Your task to perform on an android device: change timer sound Image 0: 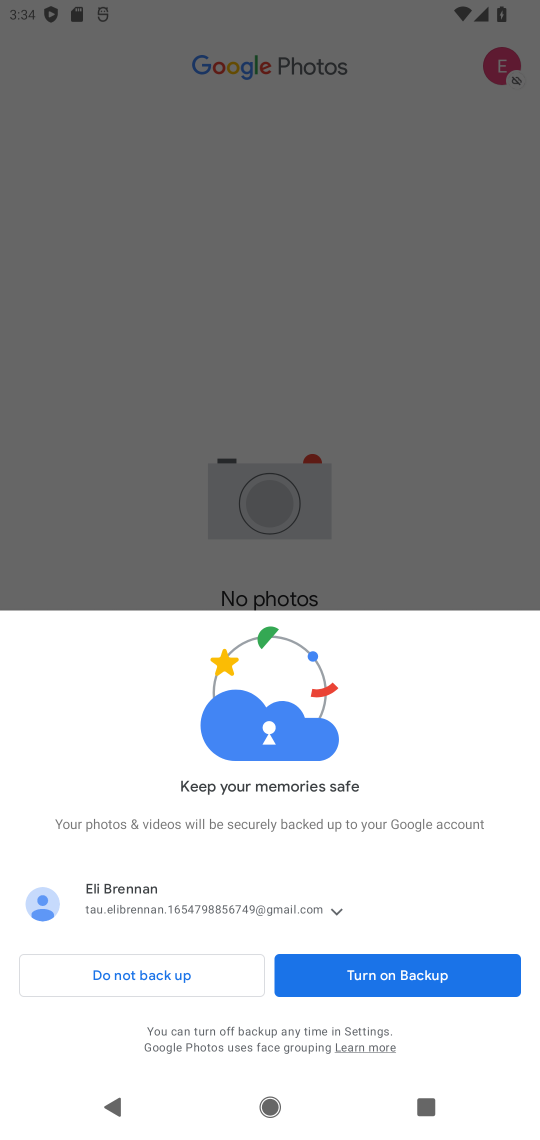
Step 0: press home button
Your task to perform on an android device: change timer sound Image 1: 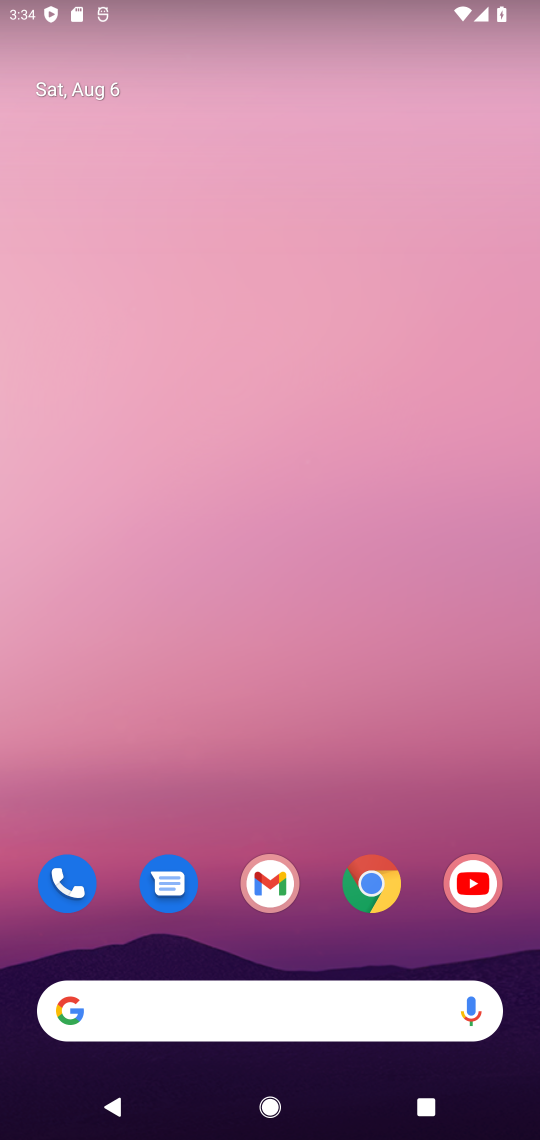
Step 1: drag from (297, 532) to (297, 240)
Your task to perform on an android device: change timer sound Image 2: 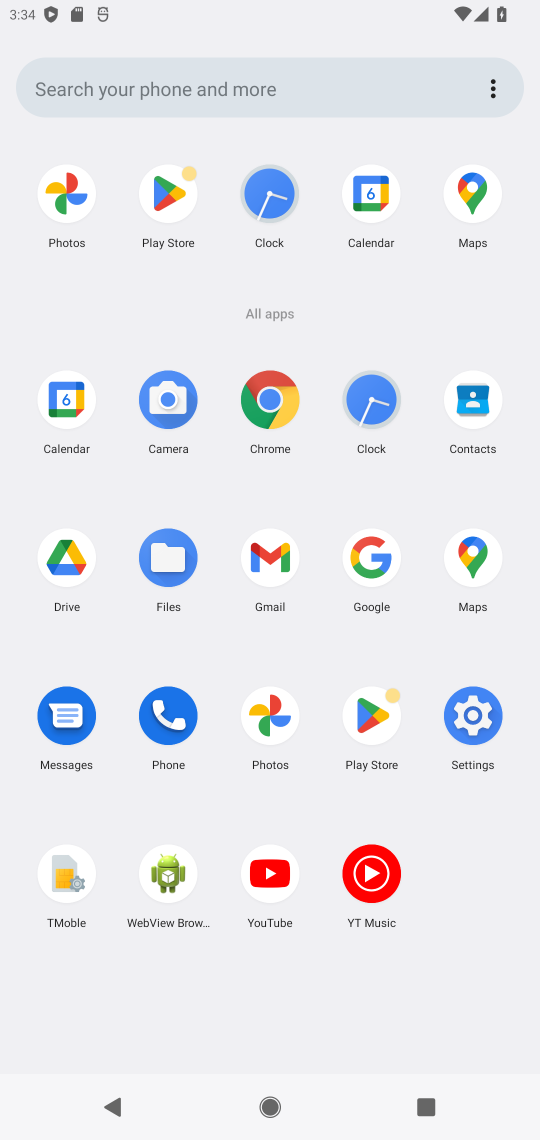
Step 2: click (362, 439)
Your task to perform on an android device: change timer sound Image 3: 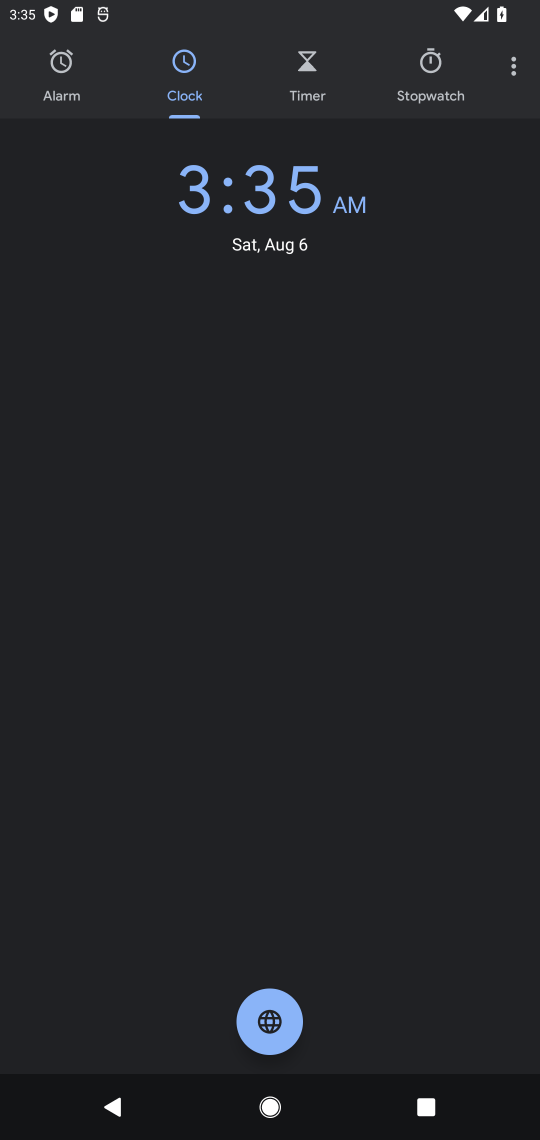
Step 3: click (103, 68)
Your task to perform on an android device: change timer sound Image 4: 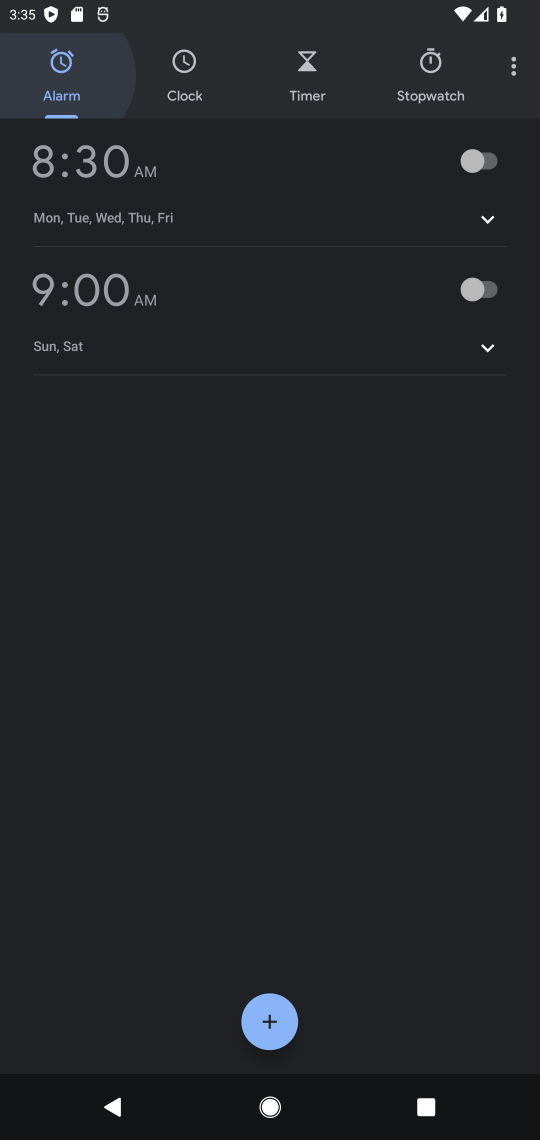
Step 4: click (302, 81)
Your task to perform on an android device: change timer sound Image 5: 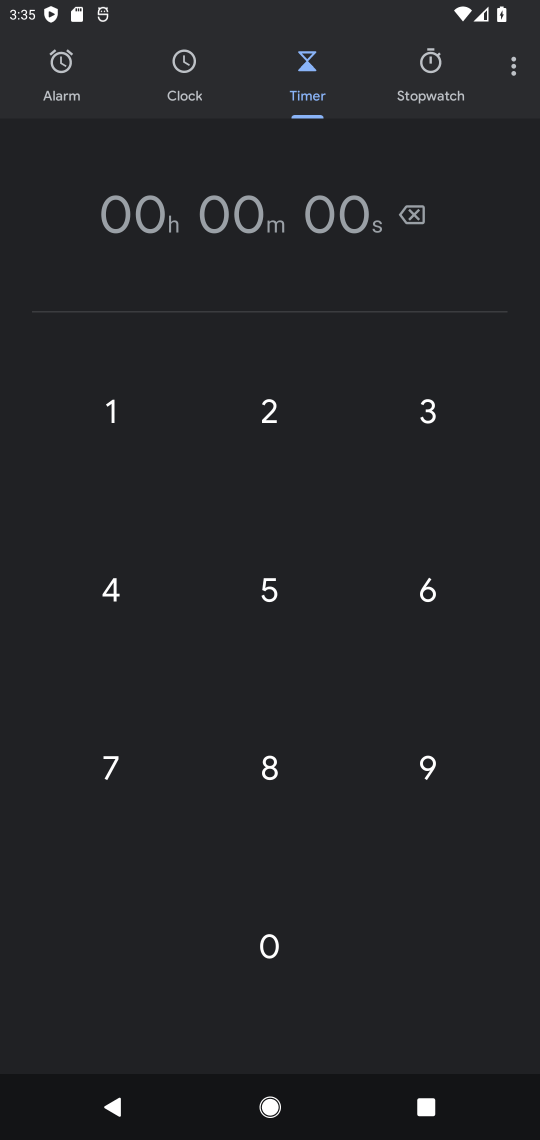
Step 5: click (516, 54)
Your task to perform on an android device: change timer sound Image 6: 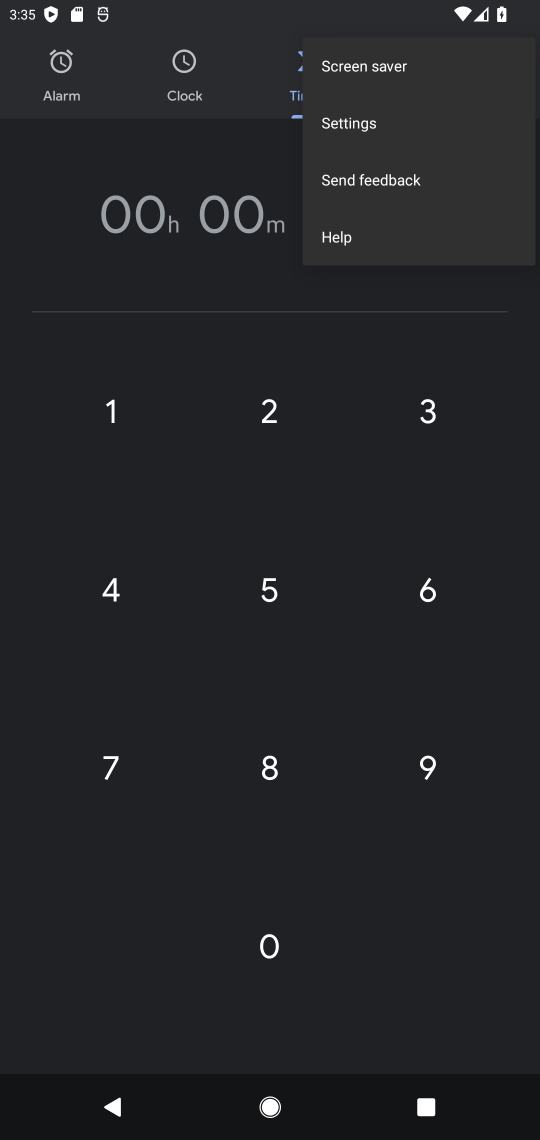
Step 6: click (355, 128)
Your task to perform on an android device: change timer sound Image 7: 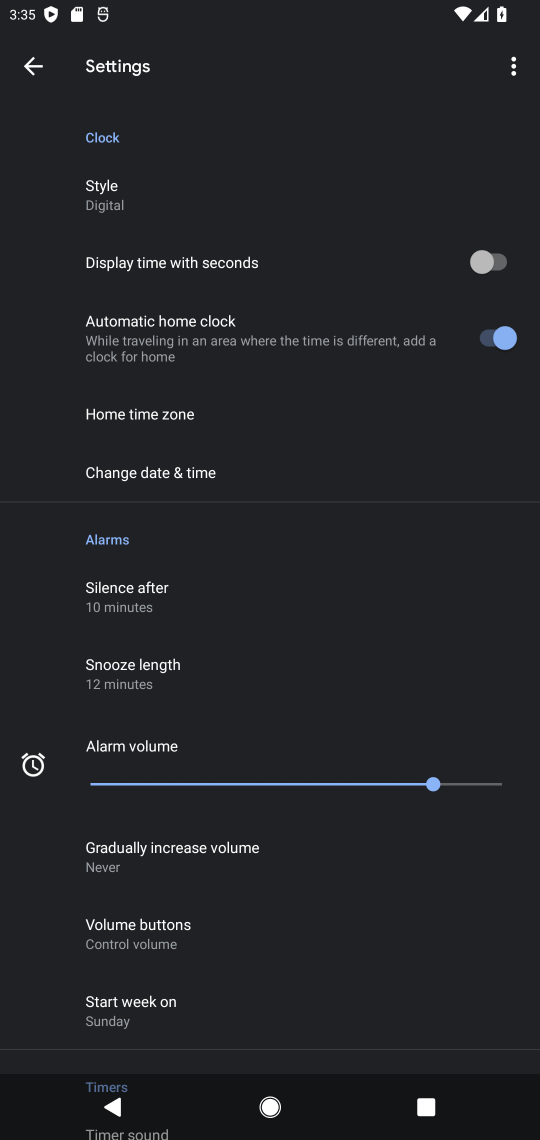
Step 7: drag from (289, 613) to (359, 161)
Your task to perform on an android device: change timer sound Image 8: 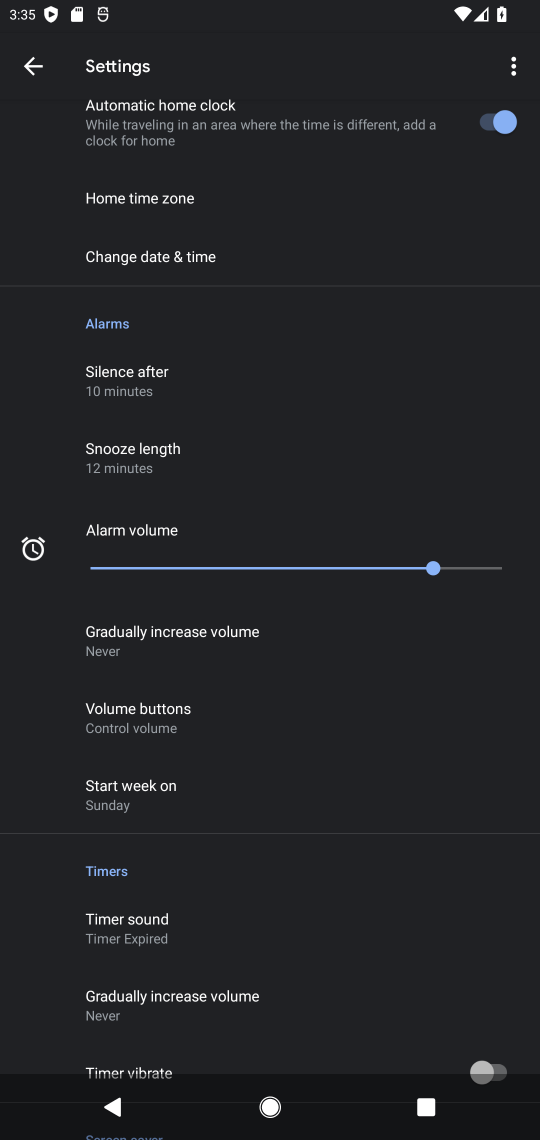
Step 8: click (152, 929)
Your task to perform on an android device: change timer sound Image 9: 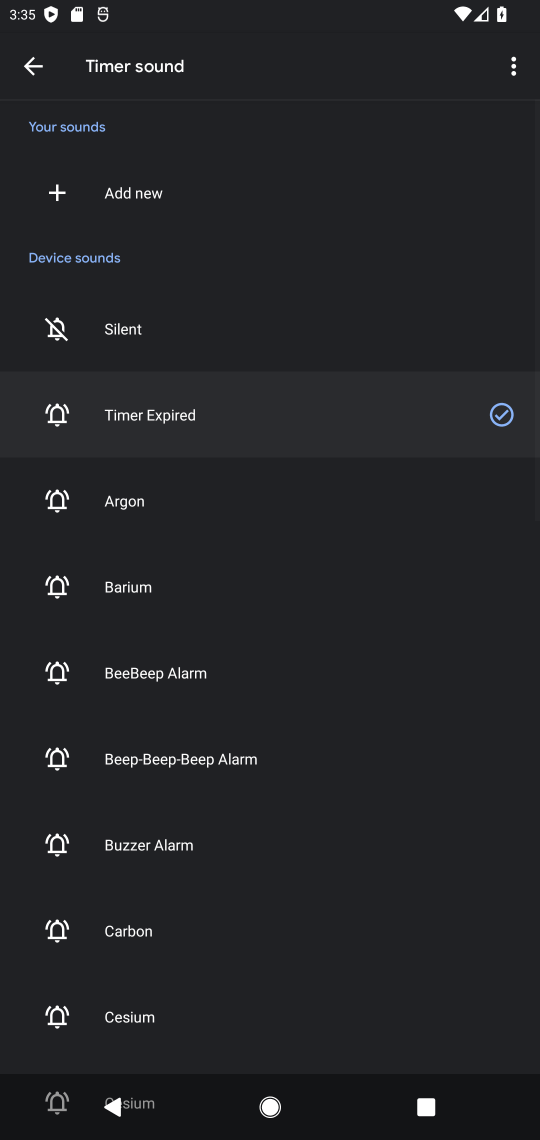
Step 9: click (145, 477)
Your task to perform on an android device: change timer sound Image 10: 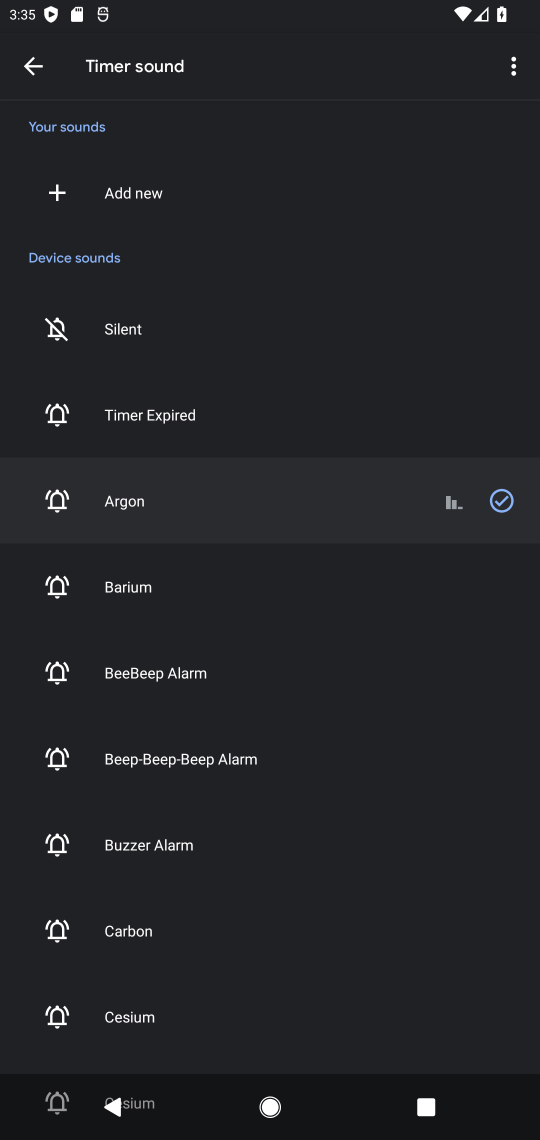
Step 10: task complete